Your task to perform on an android device: Go to Google Image 0: 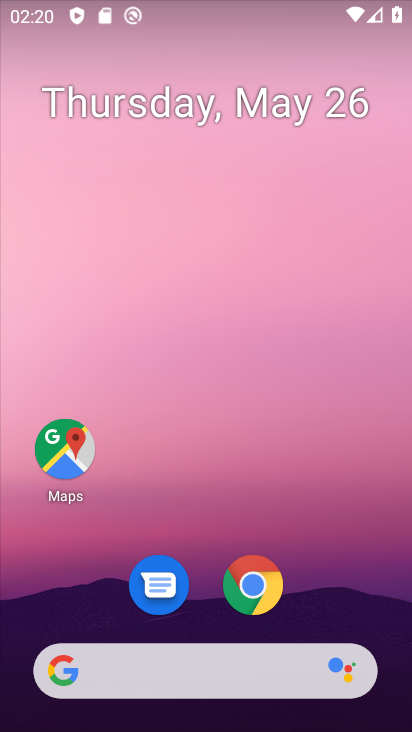
Step 0: click (215, 681)
Your task to perform on an android device: Go to Google Image 1: 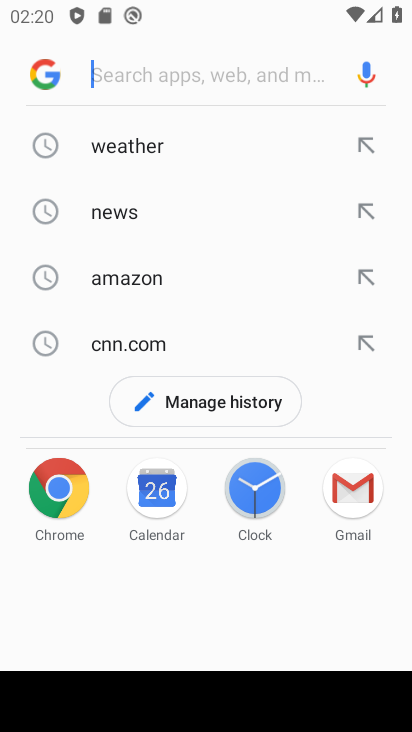
Step 1: click (45, 79)
Your task to perform on an android device: Go to Google Image 2: 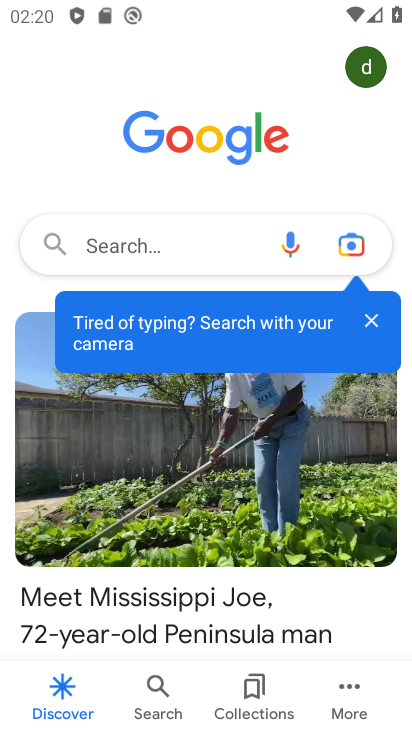
Step 2: task complete